Your task to perform on an android device: Show me popular games on the Play Store Image 0: 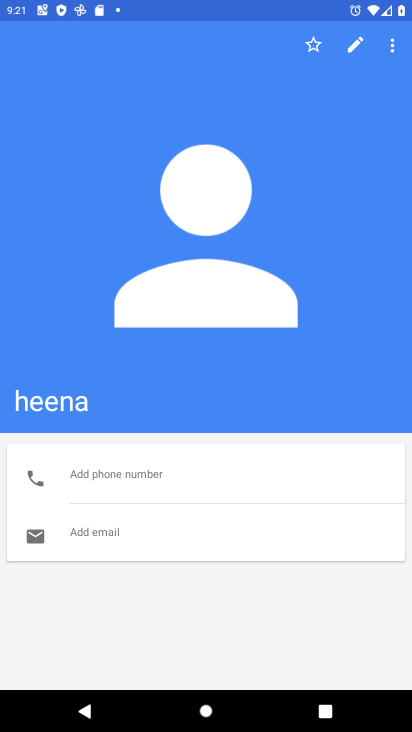
Step 0: press home button
Your task to perform on an android device: Show me popular games on the Play Store Image 1: 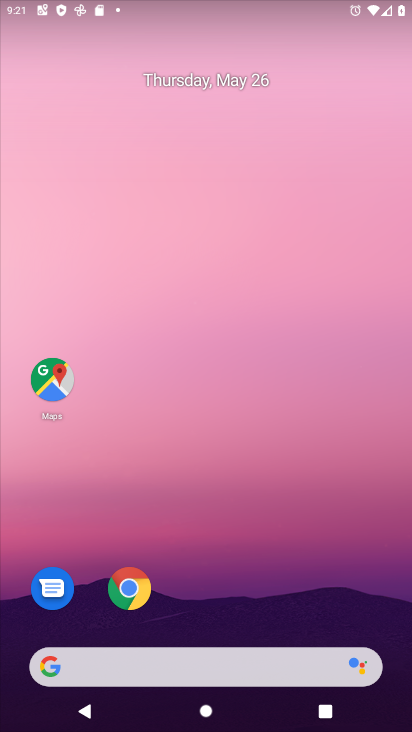
Step 1: drag from (403, 635) to (255, 54)
Your task to perform on an android device: Show me popular games on the Play Store Image 2: 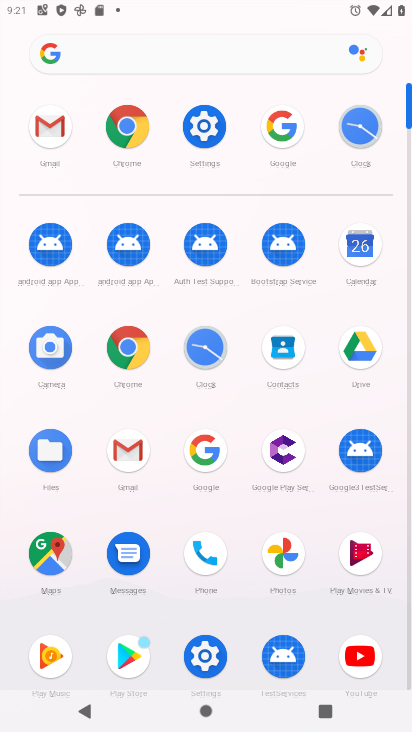
Step 2: click (134, 641)
Your task to perform on an android device: Show me popular games on the Play Store Image 3: 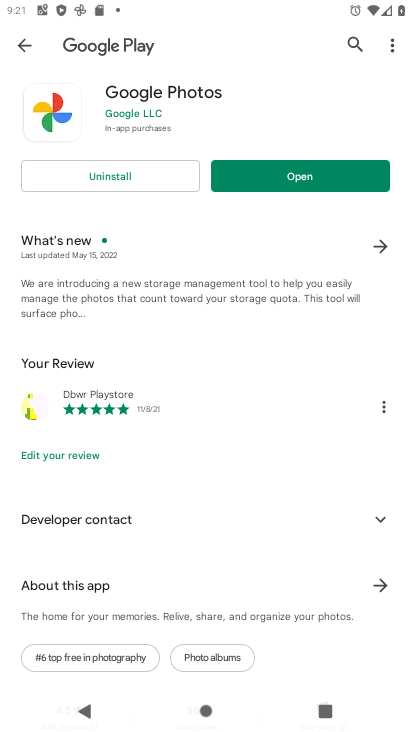
Step 3: press back button
Your task to perform on an android device: Show me popular games on the Play Store Image 4: 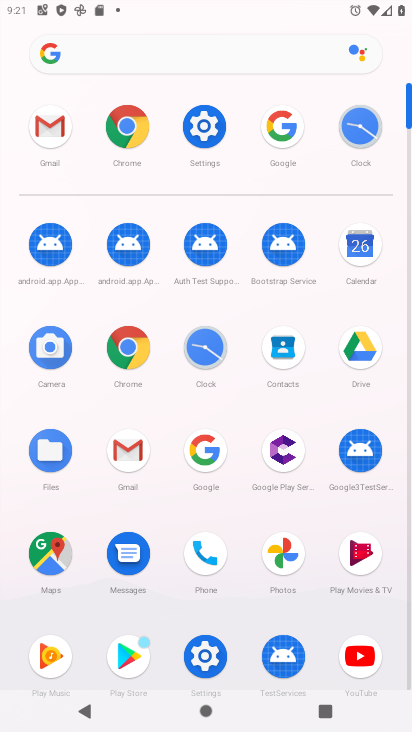
Step 4: click (110, 652)
Your task to perform on an android device: Show me popular games on the Play Store Image 5: 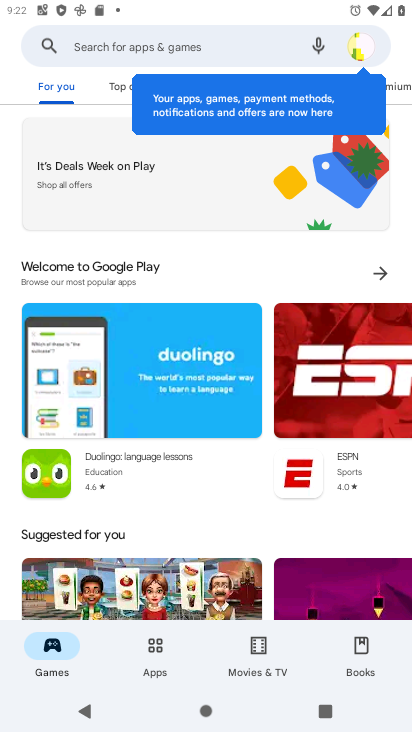
Step 5: task complete